Your task to perform on an android device: Go to Android settings Image 0: 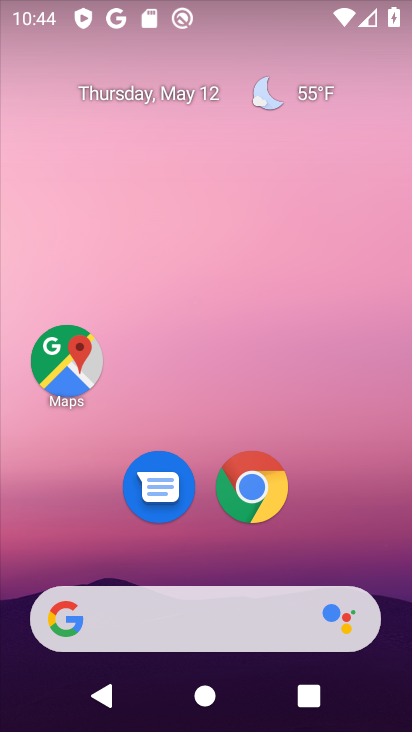
Step 0: drag from (393, 572) to (399, 611)
Your task to perform on an android device: Go to Android settings Image 1: 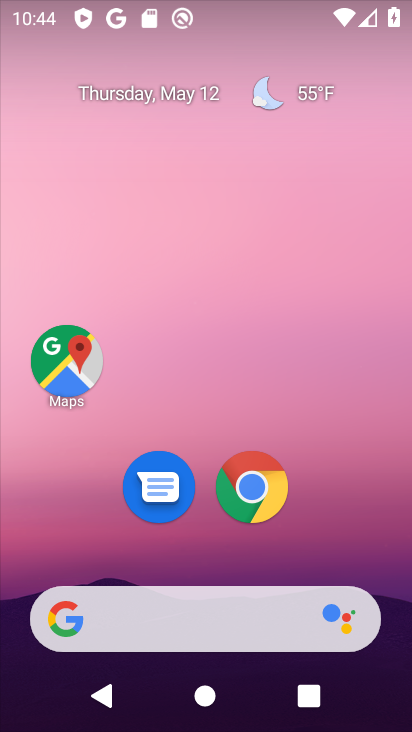
Step 1: drag from (350, 553) to (366, 10)
Your task to perform on an android device: Go to Android settings Image 2: 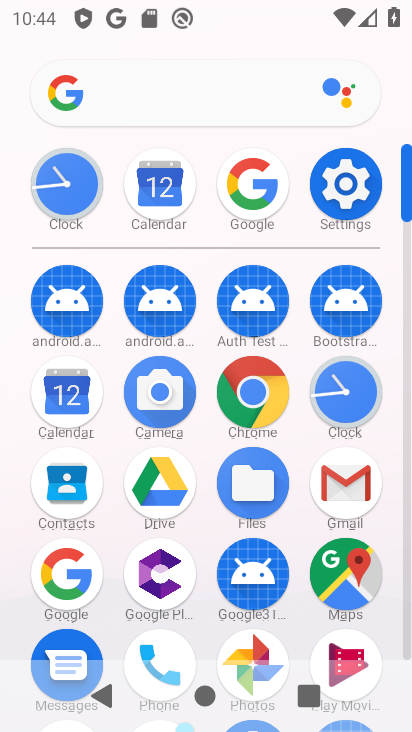
Step 2: click (342, 186)
Your task to perform on an android device: Go to Android settings Image 3: 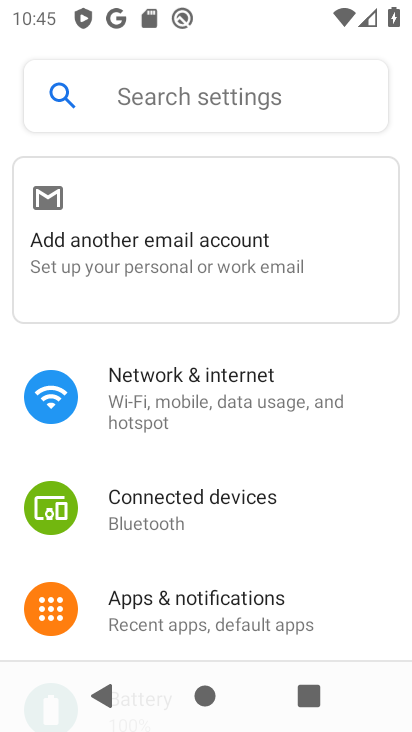
Step 3: task complete